Your task to perform on an android device: Search for sushi restaurants on Maps Image 0: 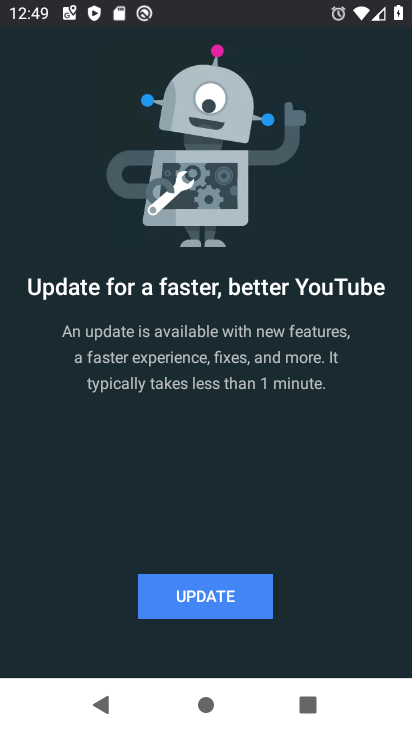
Step 0: press home button
Your task to perform on an android device: Search for sushi restaurants on Maps Image 1: 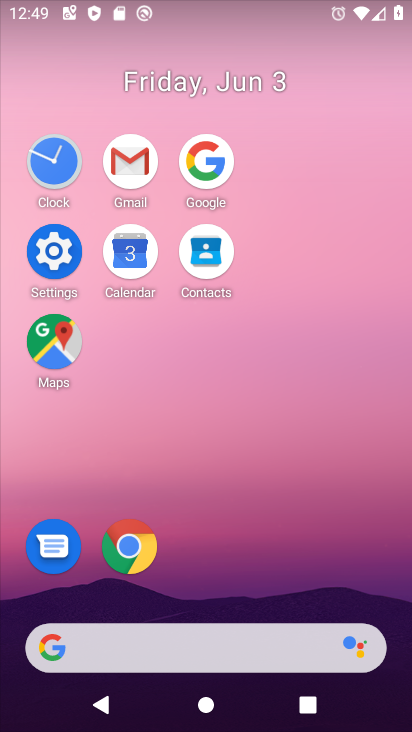
Step 1: click (62, 349)
Your task to perform on an android device: Search for sushi restaurants on Maps Image 2: 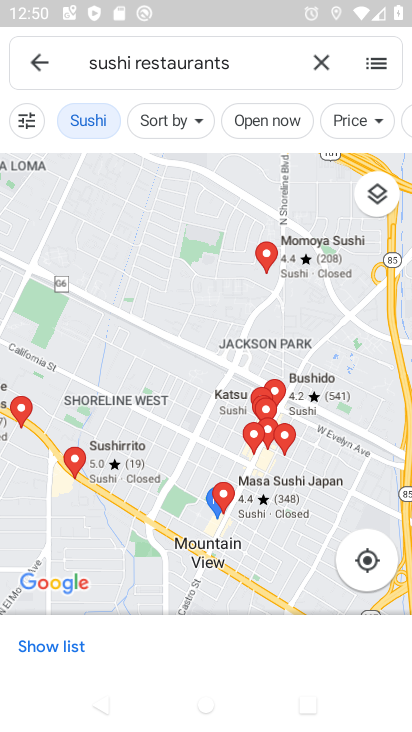
Step 2: task complete